Your task to perform on an android device: Open settings Image 0: 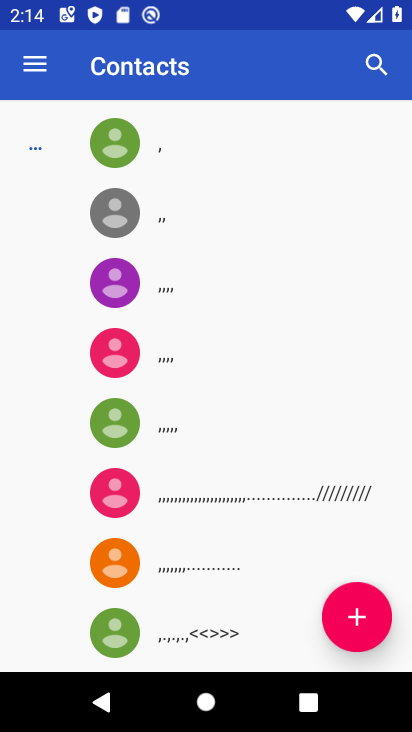
Step 0: press home button
Your task to perform on an android device: Open settings Image 1: 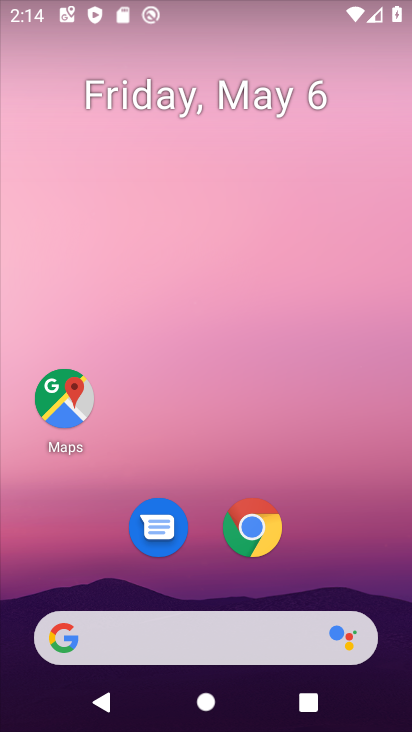
Step 1: drag from (347, 569) to (340, 155)
Your task to perform on an android device: Open settings Image 2: 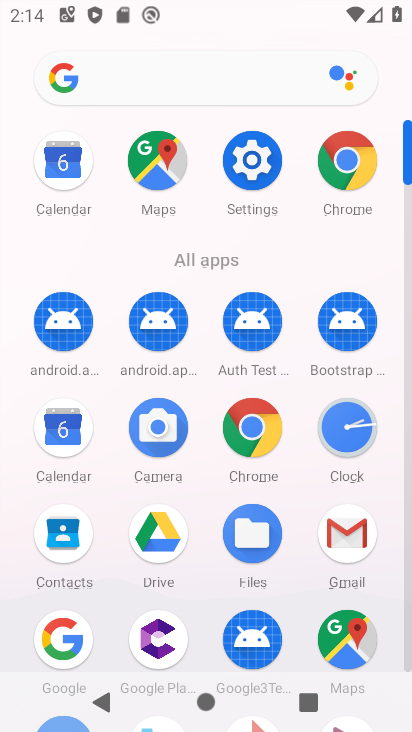
Step 2: click (252, 159)
Your task to perform on an android device: Open settings Image 3: 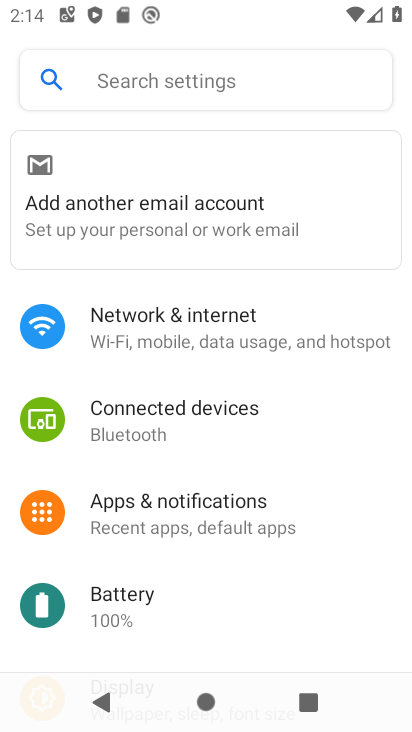
Step 3: task complete